Your task to perform on an android device: add a contact Image 0: 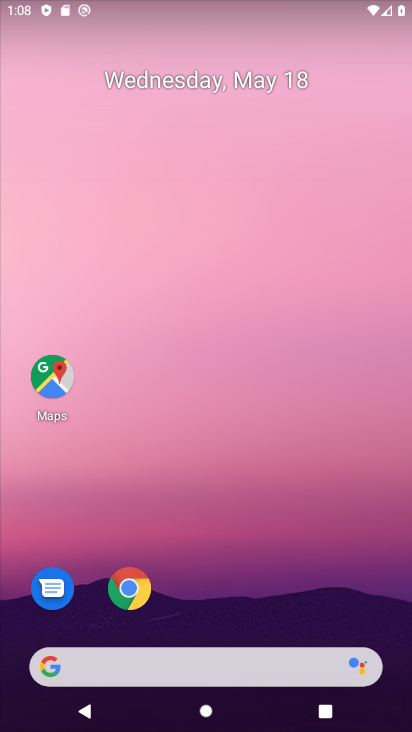
Step 0: drag from (369, 587) to (379, 175)
Your task to perform on an android device: add a contact Image 1: 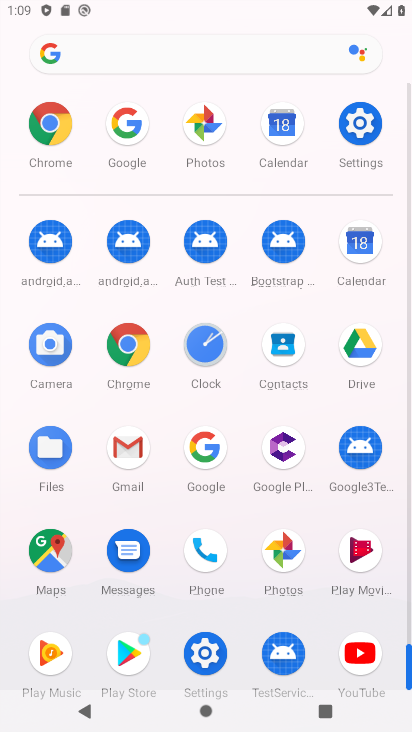
Step 1: click (279, 347)
Your task to perform on an android device: add a contact Image 2: 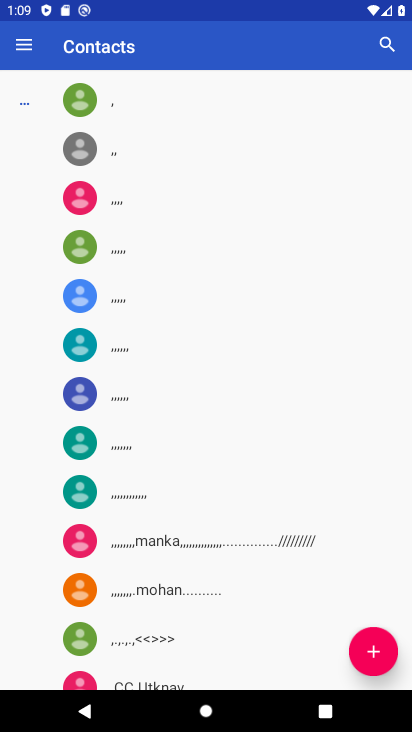
Step 2: click (380, 650)
Your task to perform on an android device: add a contact Image 3: 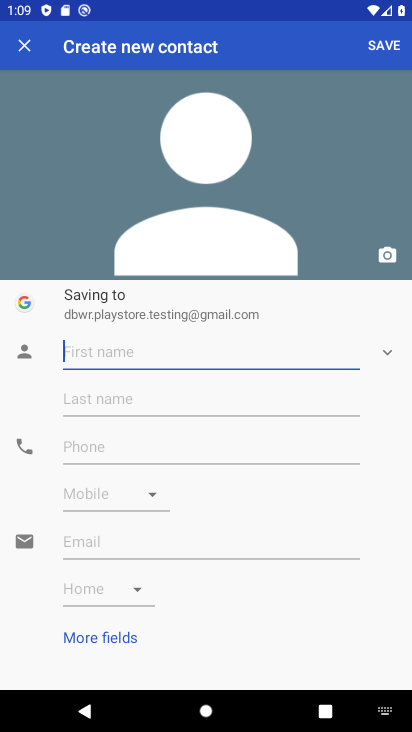
Step 3: click (223, 353)
Your task to perform on an android device: add a contact Image 4: 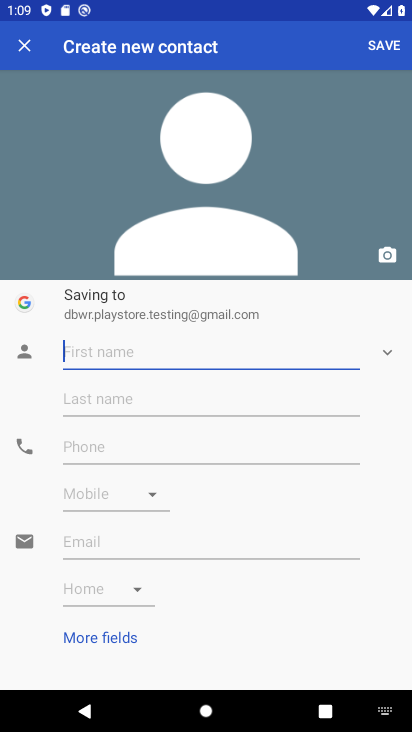
Step 4: type "maan"
Your task to perform on an android device: add a contact Image 5: 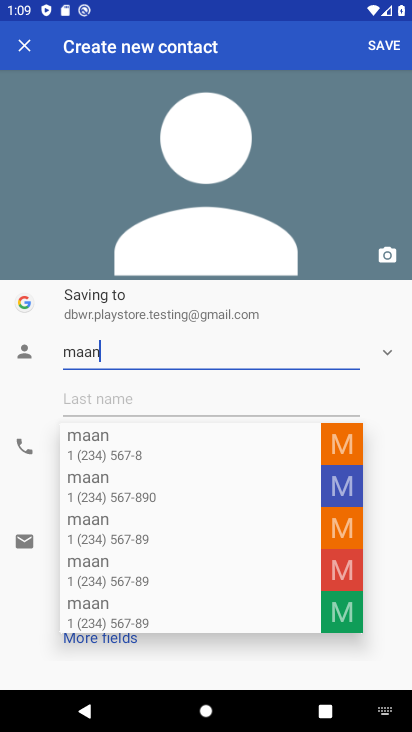
Step 5: click (377, 442)
Your task to perform on an android device: add a contact Image 6: 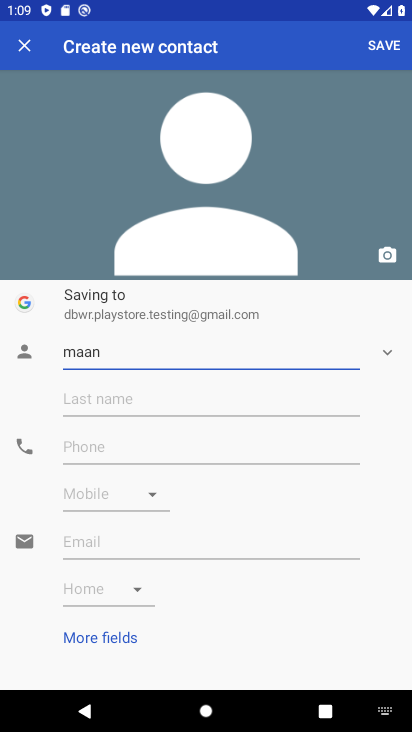
Step 6: click (157, 449)
Your task to perform on an android device: add a contact Image 7: 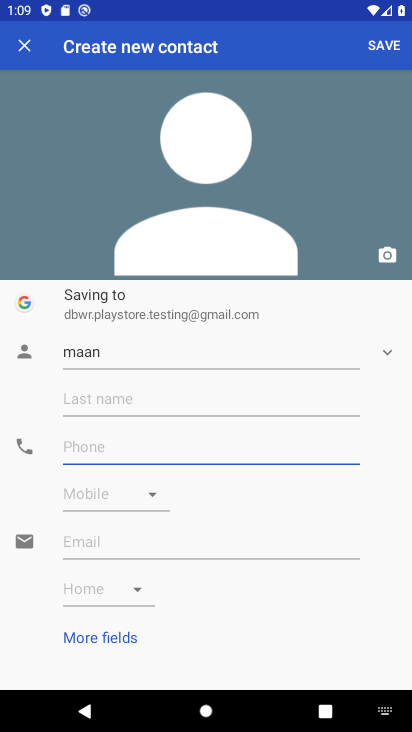
Step 7: type "123456789"
Your task to perform on an android device: add a contact Image 8: 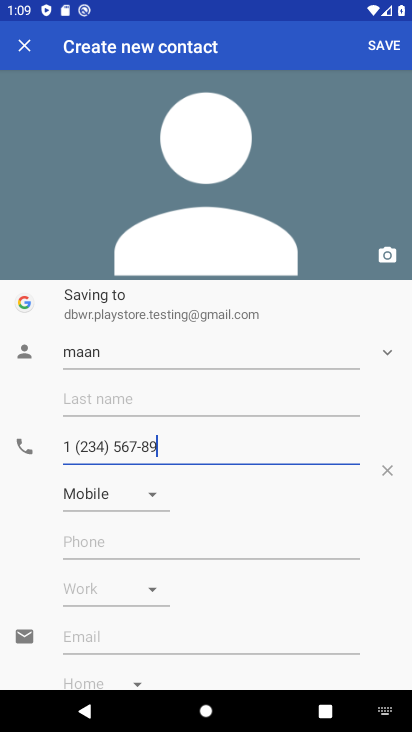
Step 8: click (377, 42)
Your task to perform on an android device: add a contact Image 9: 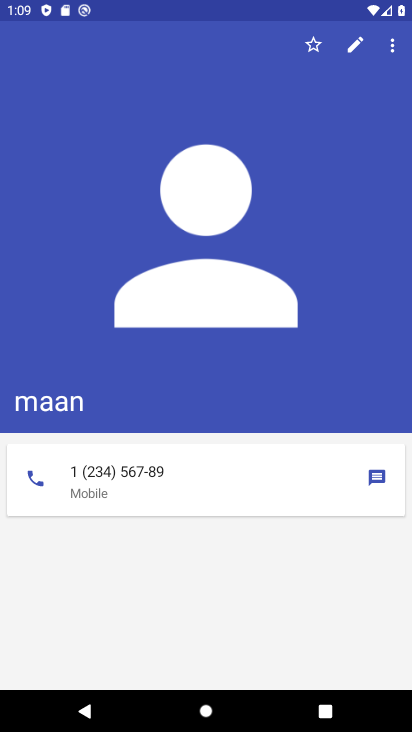
Step 9: task complete